Your task to perform on an android device: delete a single message in the gmail app Image 0: 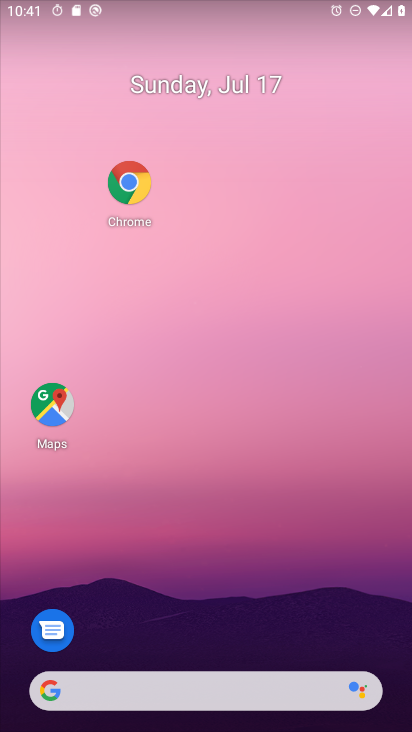
Step 0: drag from (290, 565) to (296, 111)
Your task to perform on an android device: delete a single message in the gmail app Image 1: 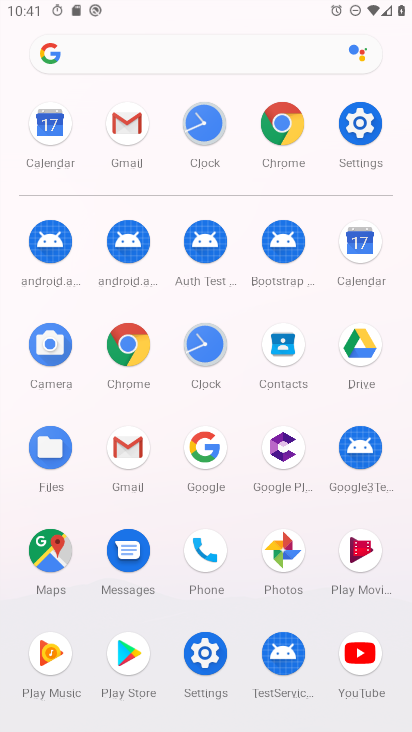
Step 1: click (118, 126)
Your task to perform on an android device: delete a single message in the gmail app Image 2: 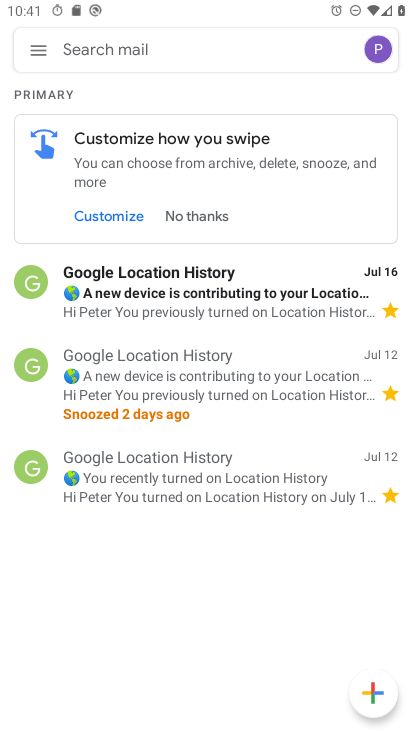
Step 2: click (97, 296)
Your task to perform on an android device: delete a single message in the gmail app Image 3: 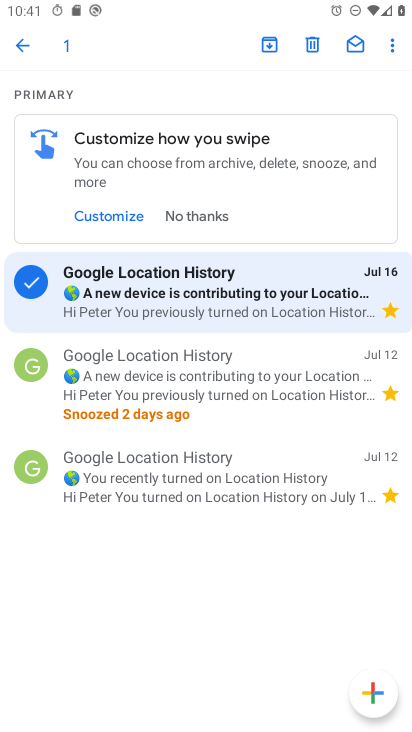
Step 3: click (304, 43)
Your task to perform on an android device: delete a single message in the gmail app Image 4: 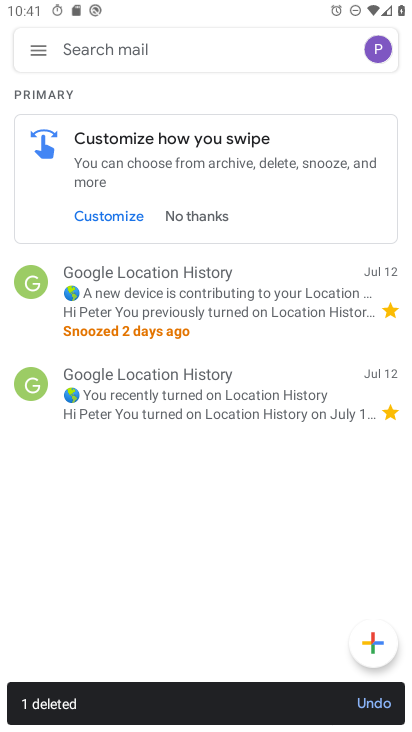
Step 4: click (58, 713)
Your task to perform on an android device: delete a single message in the gmail app Image 5: 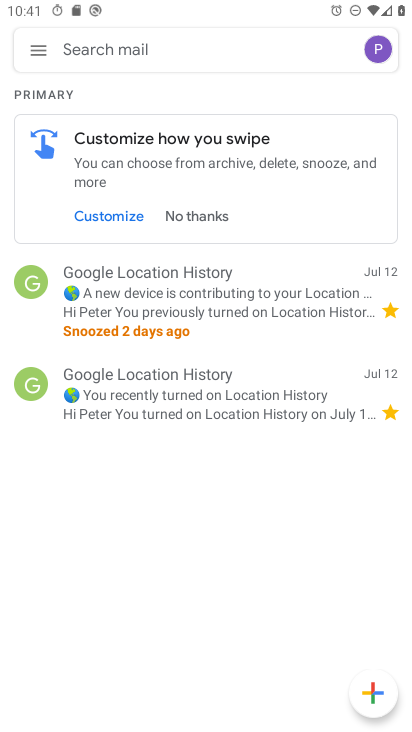
Step 5: task complete